Your task to perform on an android device: Check the weather Image 0: 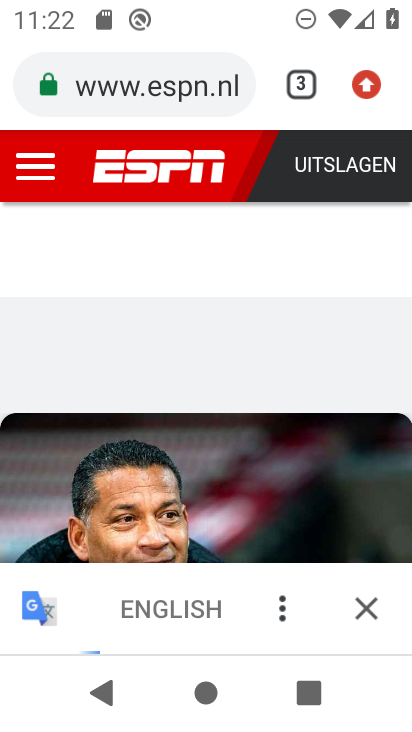
Step 0: press home button
Your task to perform on an android device: Check the weather Image 1: 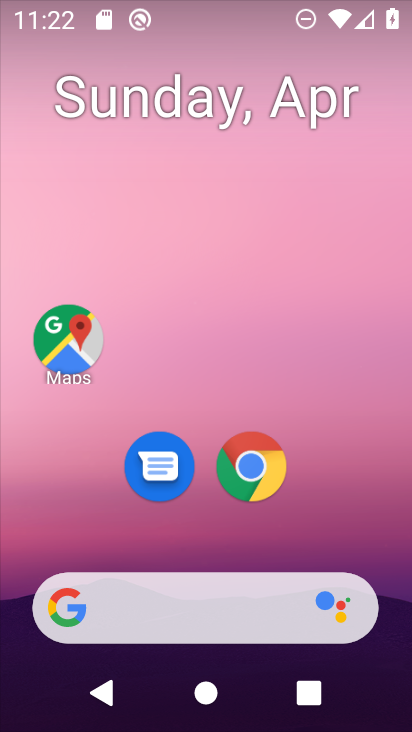
Step 1: click (204, 592)
Your task to perform on an android device: Check the weather Image 2: 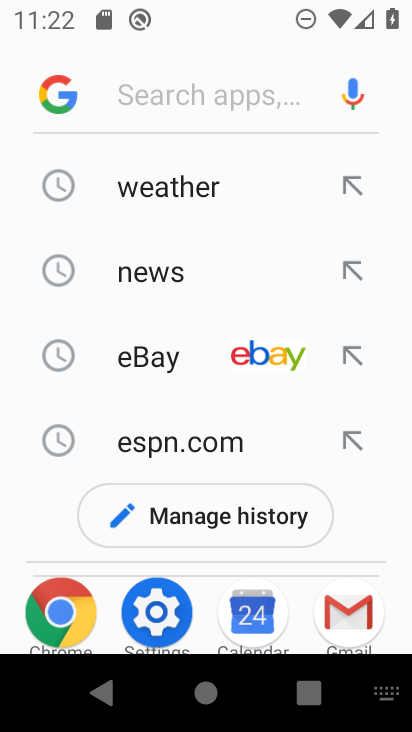
Step 2: click (189, 194)
Your task to perform on an android device: Check the weather Image 3: 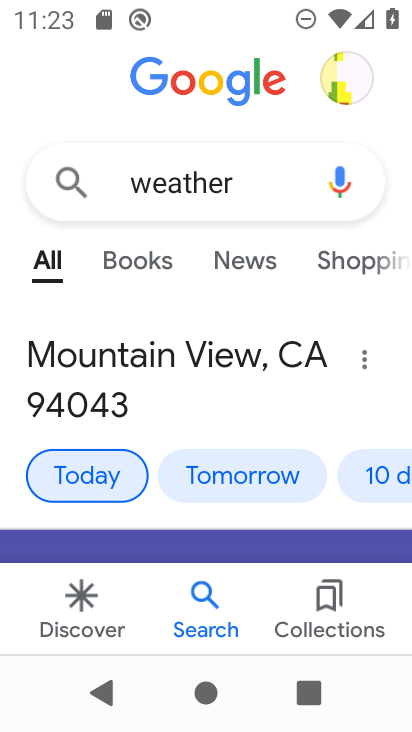
Step 3: task complete